Your task to perform on an android device: install app "Gmail" Image 0: 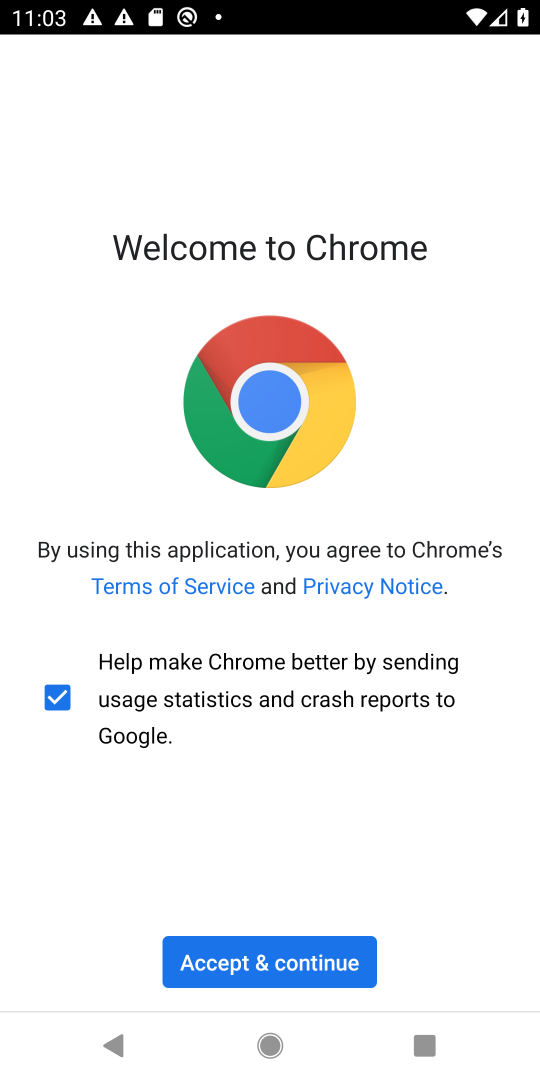
Step 0: press home button
Your task to perform on an android device: install app "Gmail" Image 1: 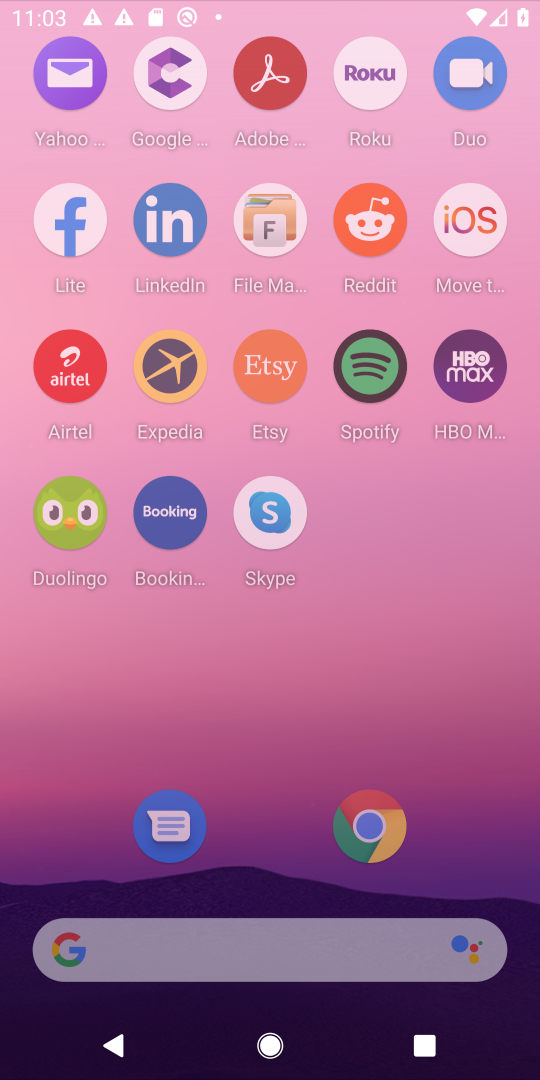
Step 1: drag from (246, 904) to (341, 1)
Your task to perform on an android device: install app "Gmail" Image 2: 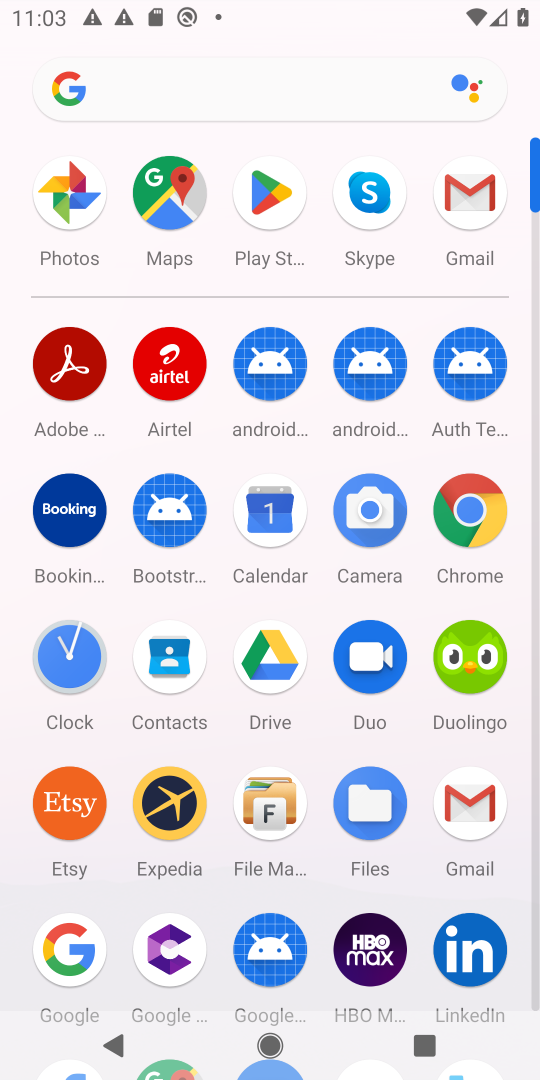
Step 2: click (463, 202)
Your task to perform on an android device: install app "Gmail" Image 3: 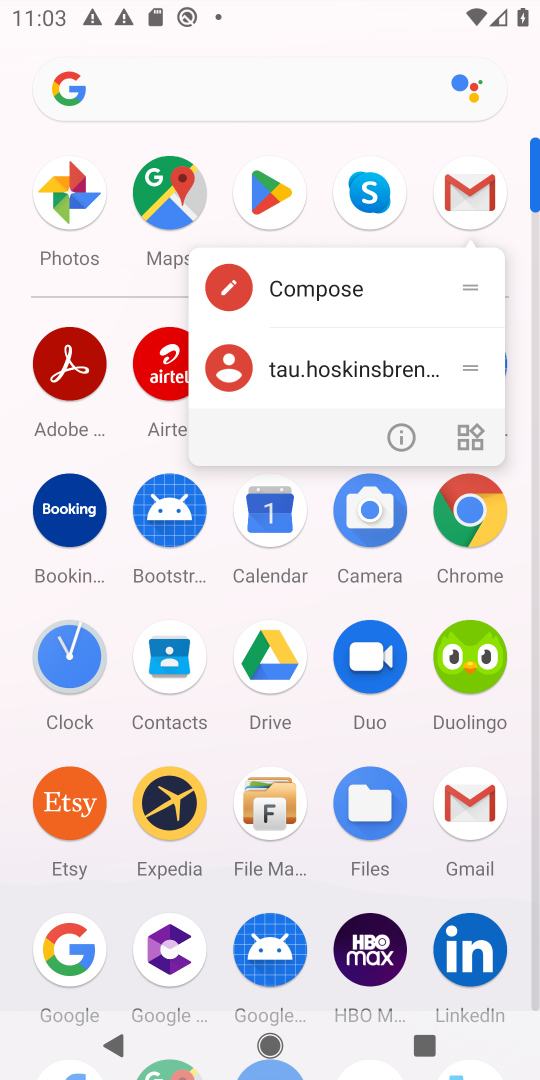
Step 3: click (265, 198)
Your task to perform on an android device: install app "Gmail" Image 4: 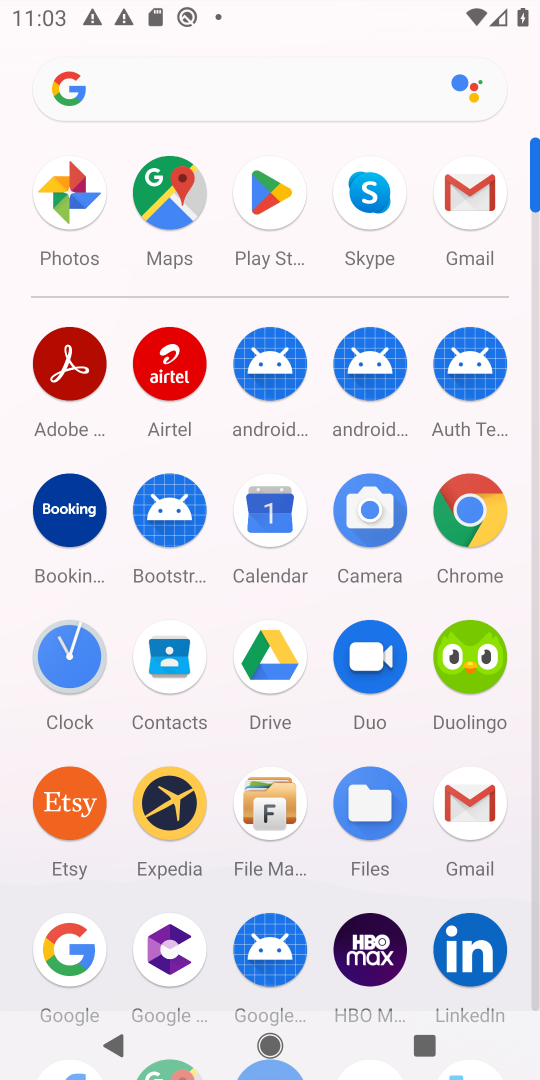
Step 4: click (265, 198)
Your task to perform on an android device: install app "Gmail" Image 5: 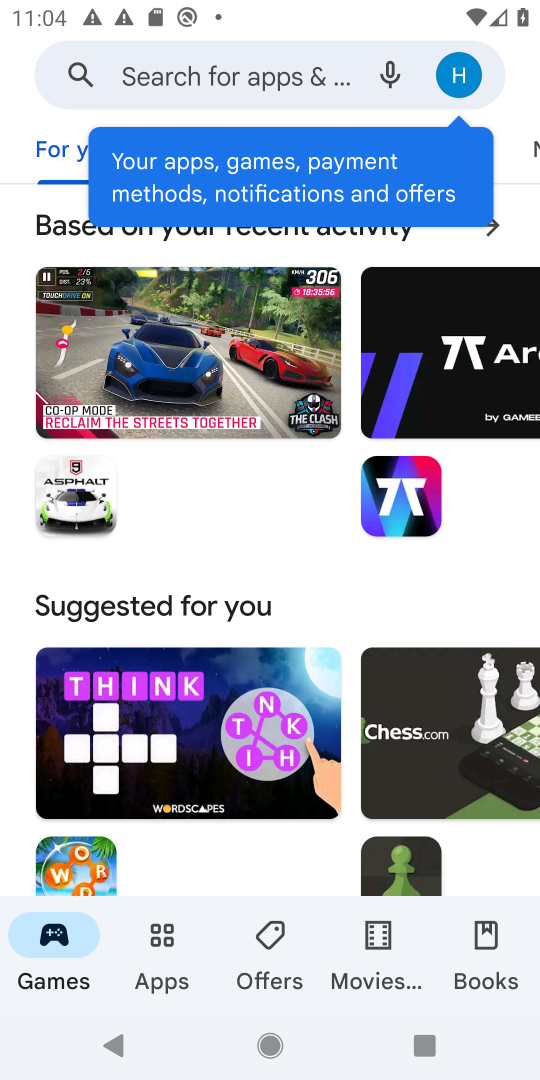
Step 5: click (147, 79)
Your task to perform on an android device: install app "Gmail" Image 6: 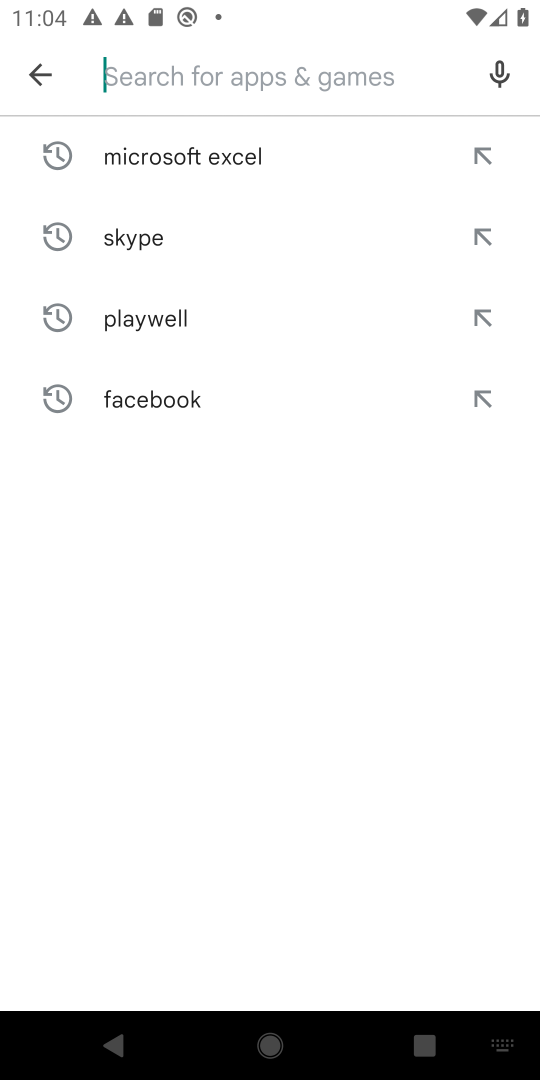
Step 6: type "Gmail"
Your task to perform on an android device: install app "Gmail" Image 7: 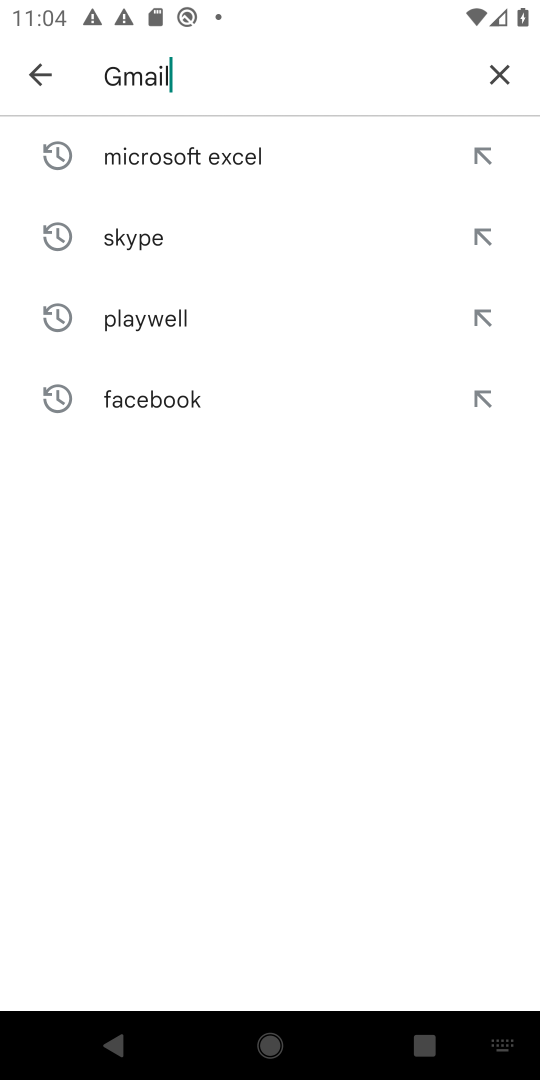
Step 7: type ""
Your task to perform on an android device: install app "Gmail" Image 8: 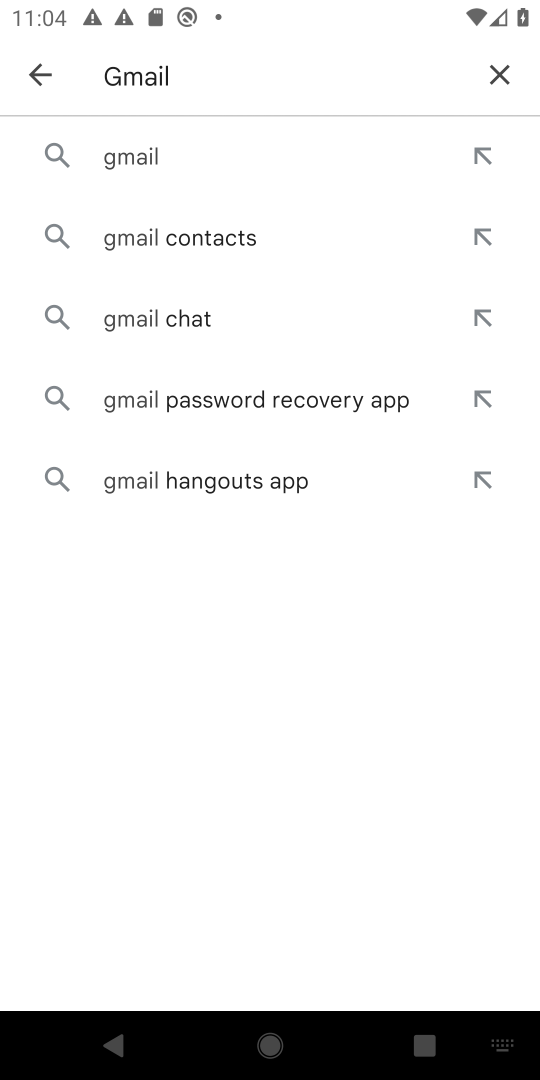
Step 8: click (156, 149)
Your task to perform on an android device: install app "Gmail" Image 9: 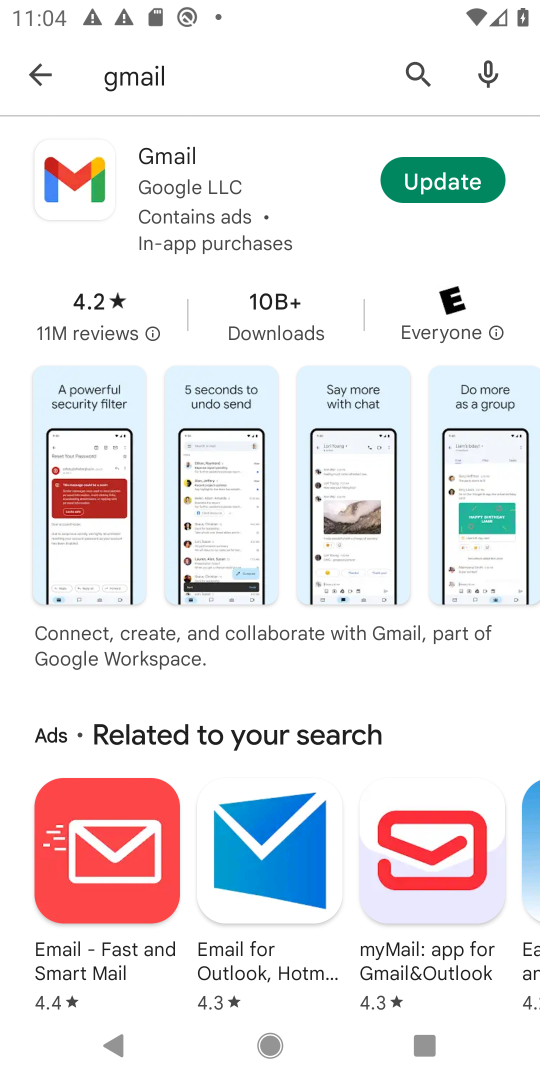
Step 9: click (155, 166)
Your task to perform on an android device: install app "Gmail" Image 10: 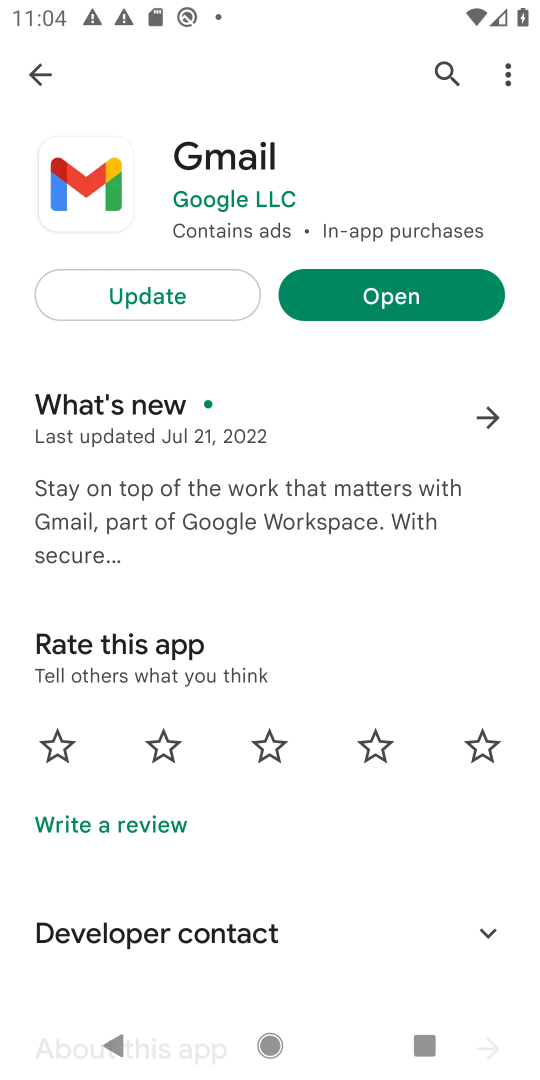
Step 10: task complete